Your task to perform on an android device: toggle location history Image 0: 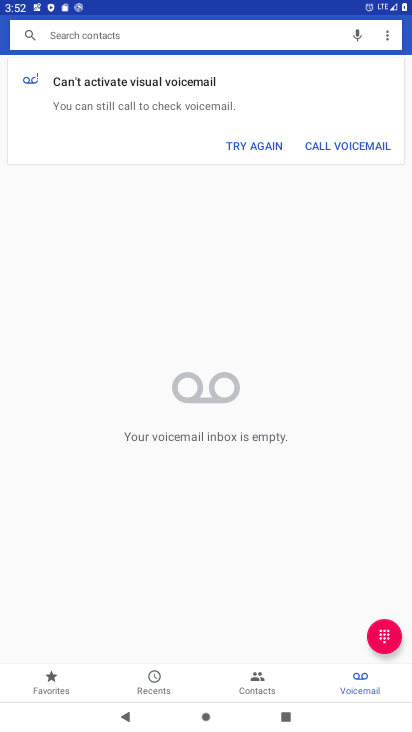
Step 0: press home button
Your task to perform on an android device: toggle location history Image 1: 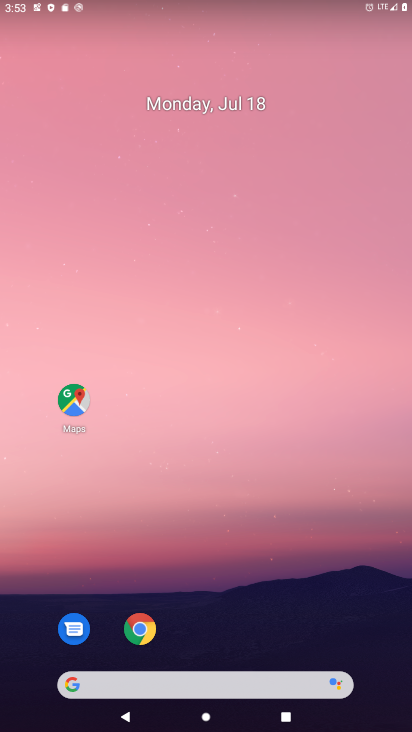
Step 1: drag from (202, 651) to (281, 113)
Your task to perform on an android device: toggle location history Image 2: 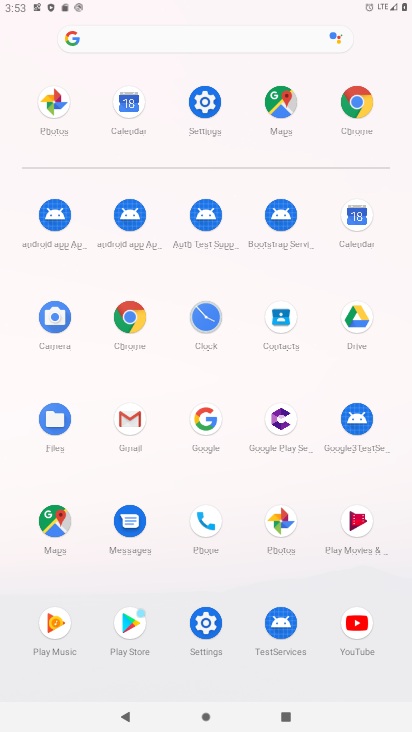
Step 2: click (210, 636)
Your task to perform on an android device: toggle location history Image 3: 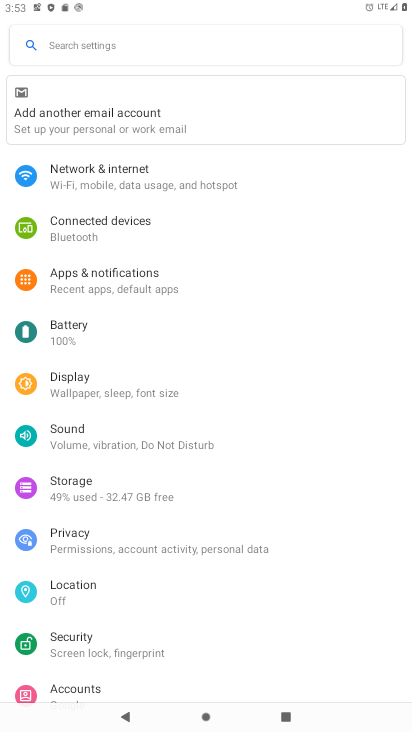
Step 3: click (94, 603)
Your task to perform on an android device: toggle location history Image 4: 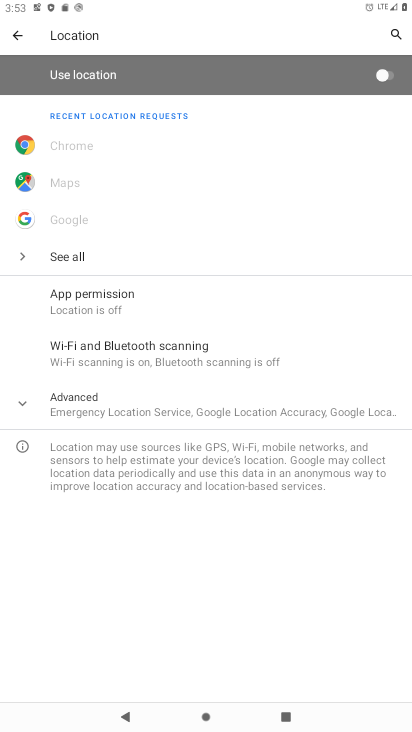
Step 4: click (150, 401)
Your task to perform on an android device: toggle location history Image 5: 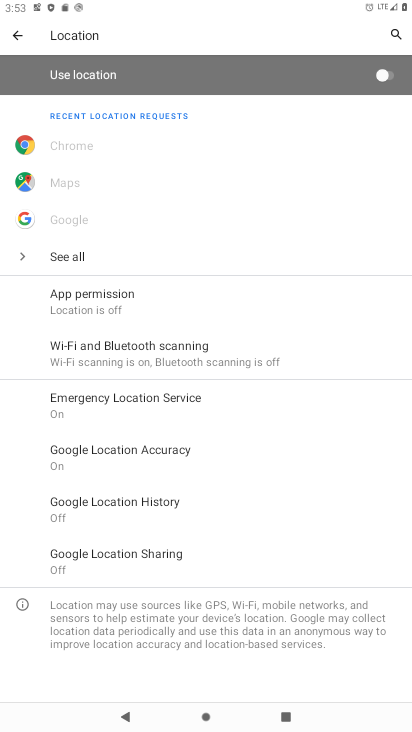
Step 5: click (169, 512)
Your task to perform on an android device: toggle location history Image 6: 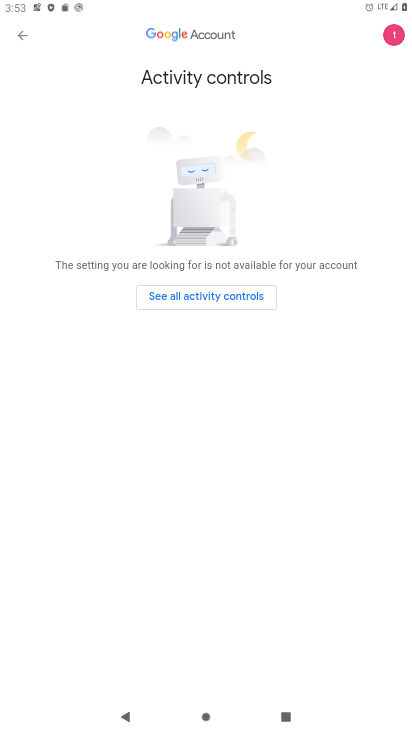
Step 6: click (223, 300)
Your task to perform on an android device: toggle location history Image 7: 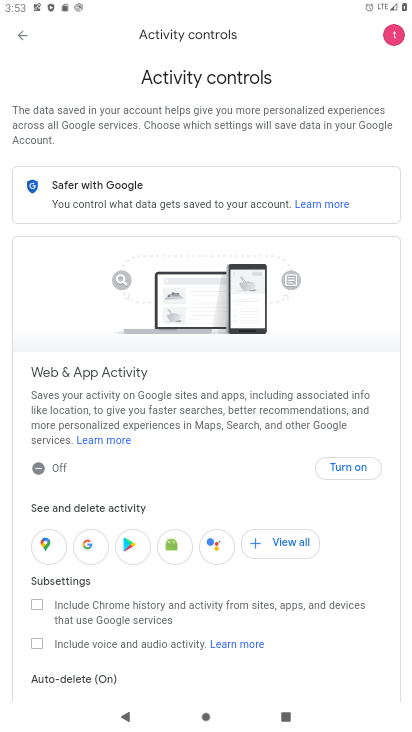
Step 7: click (350, 465)
Your task to perform on an android device: toggle location history Image 8: 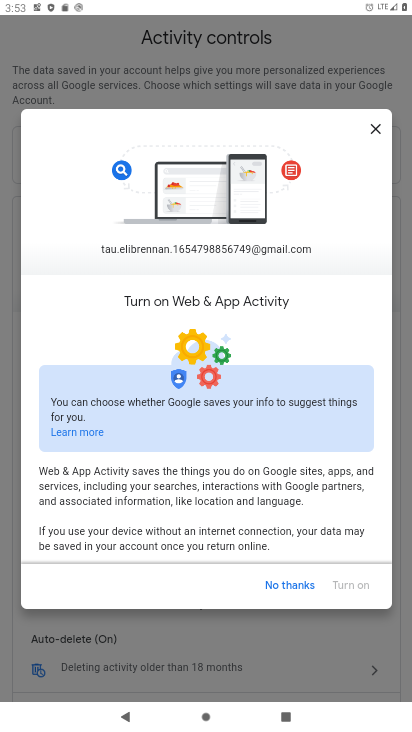
Step 8: drag from (283, 516) to (307, 119)
Your task to perform on an android device: toggle location history Image 9: 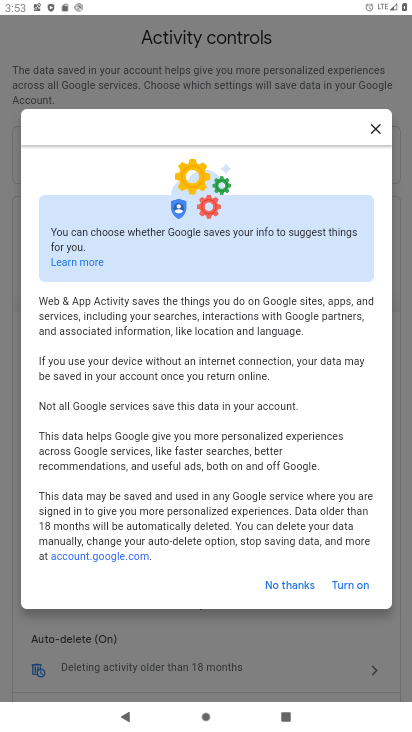
Step 9: click (359, 584)
Your task to perform on an android device: toggle location history Image 10: 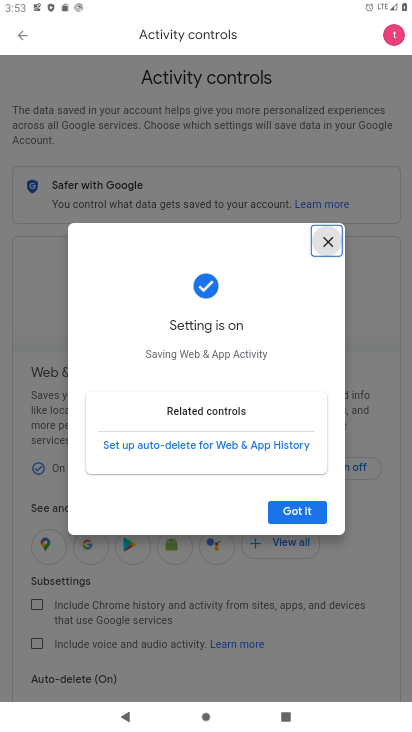
Step 10: click (284, 501)
Your task to perform on an android device: toggle location history Image 11: 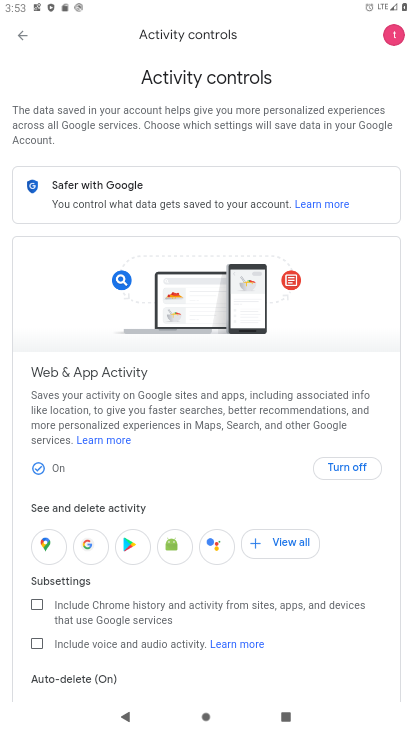
Step 11: task complete